Your task to perform on an android device: set an alarm Image 0: 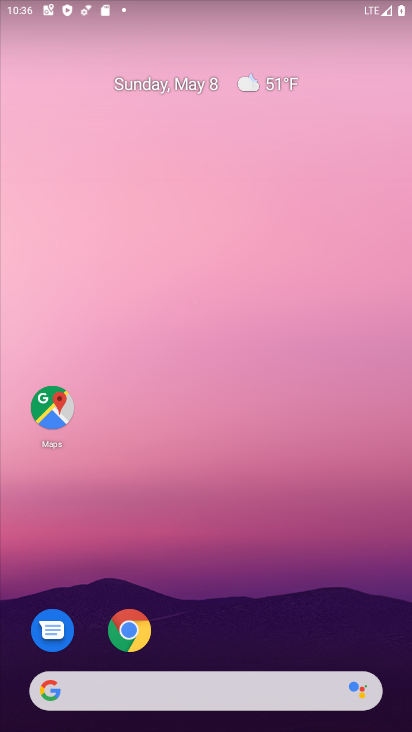
Step 0: drag from (312, 630) to (216, 19)
Your task to perform on an android device: set an alarm Image 1: 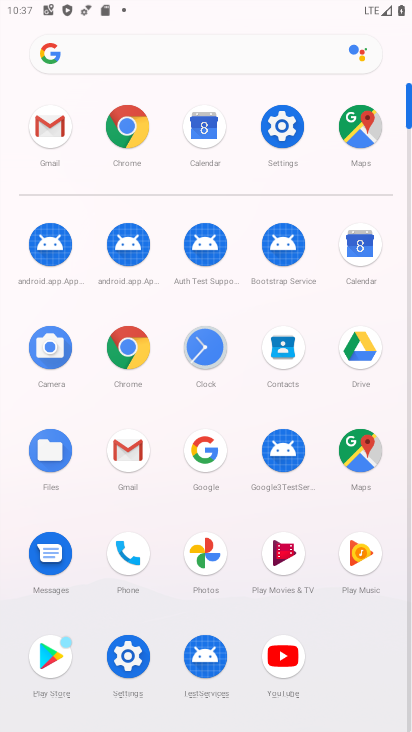
Step 1: click (209, 353)
Your task to perform on an android device: set an alarm Image 2: 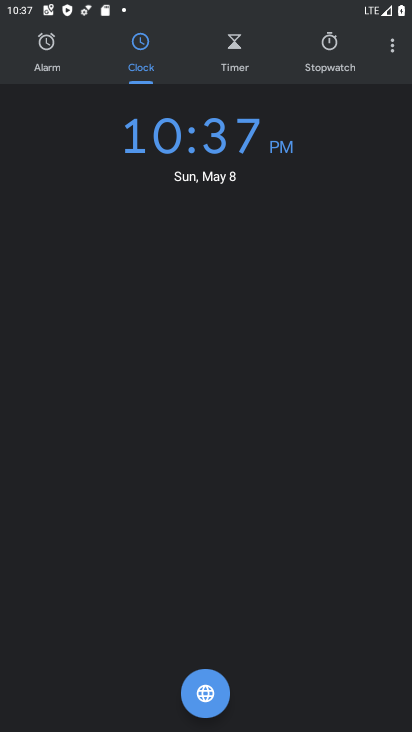
Step 2: click (44, 45)
Your task to perform on an android device: set an alarm Image 3: 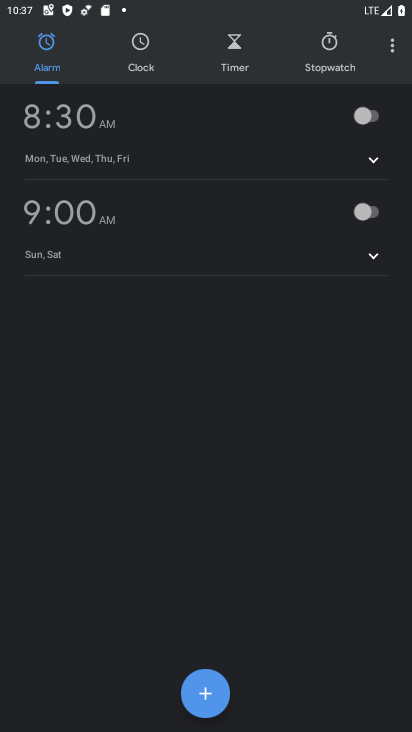
Step 3: click (357, 125)
Your task to perform on an android device: set an alarm Image 4: 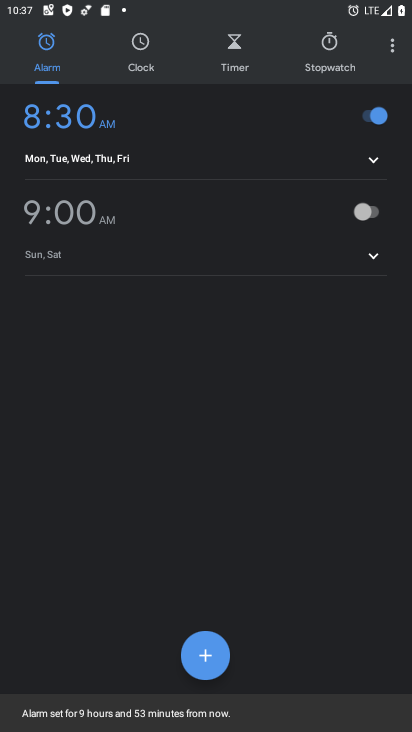
Step 4: task complete